Your task to perform on an android device: turn off improve location accuracy Image 0: 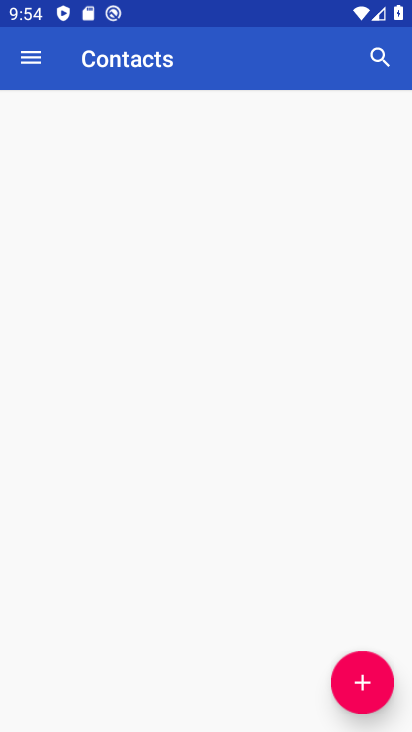
Step 0: press home button
Your task to perform on an android device: turn off improve location accuracy Image 1: 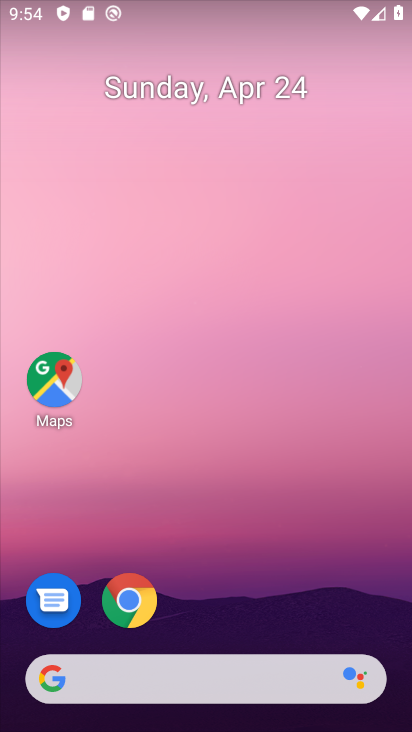
Step 1: drag from (187, 535) to (252, 31)
Your task to perform on an android device: turn off improve location accuracy Image 2: 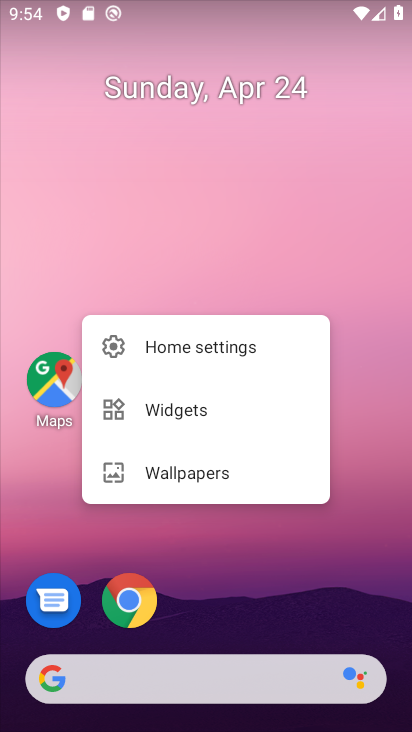
Step 2: click (240, 241)
Your task to perform on an android device: turn off improve location accuracy Image 3: 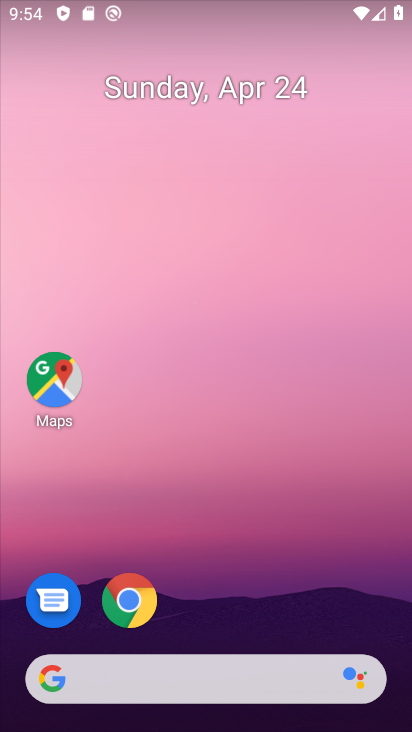
Step 3: drag from (231, 619) to (250, 57)
Your task to perform on an android device: turn off improve location accuracy Image 4: 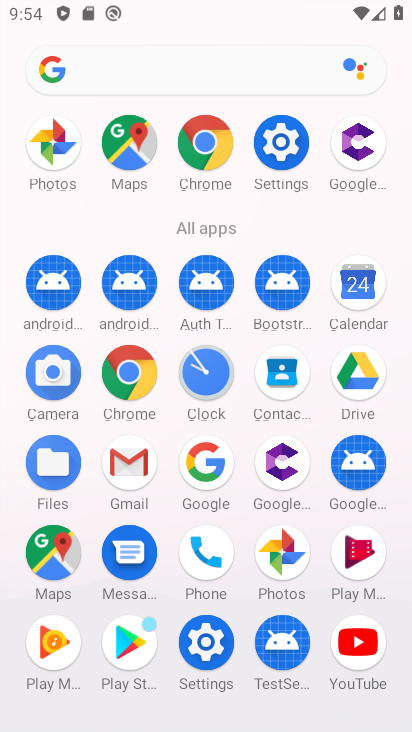
Step 4: click (276, 140)
Your task to perform on an android device: turn off improve location accuracy Image 5: 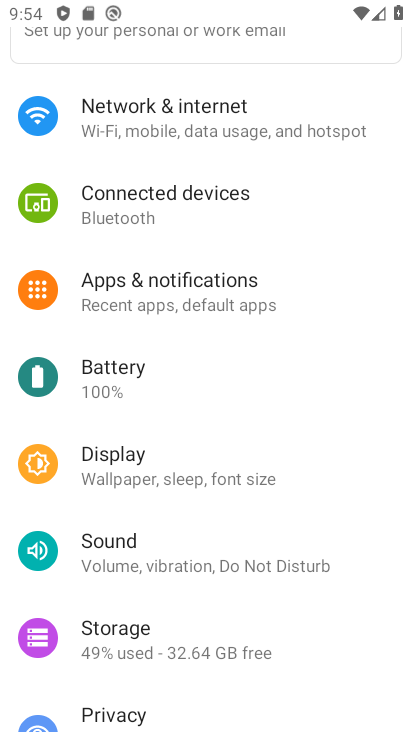
Step 5: drag from (191, 651) to (186, 184)
Your task to perform on an android device: turn off improve location accuracy Image 6: 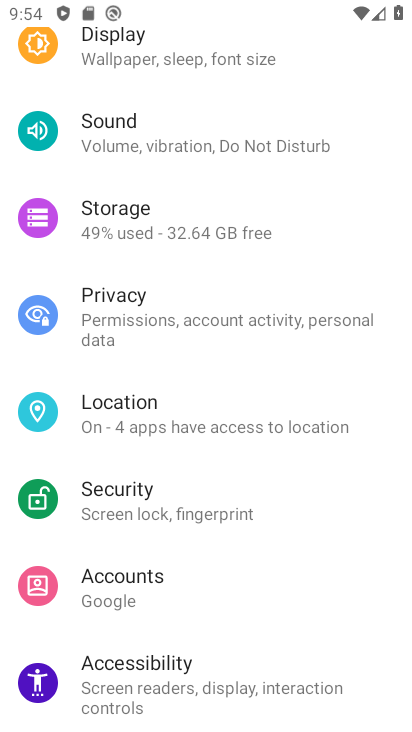
Step 6: click (125, 412)
Your task to perform on an android device: turn off improve location accuracy Image 7: 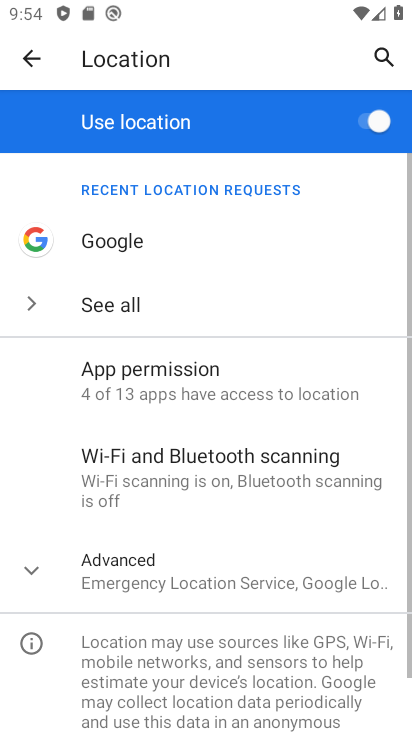
Step 7: click (123, 559)
Your task to perform on an android device: turn off improve location accuracy Image 8: 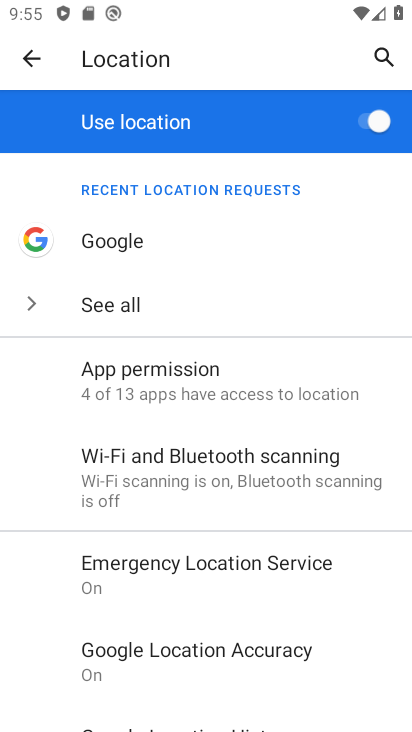
Step 8: click (157, 647)
Your task to perform on an android device: turn off improve location accuracy Image 9: 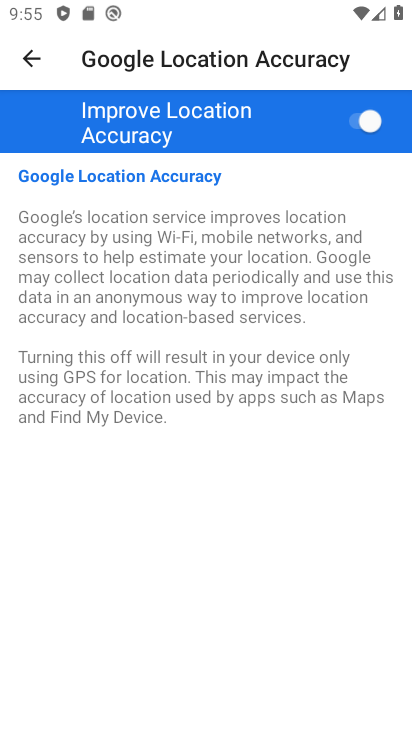
Step 9: click (367, 122)
Your task to perform on an android device: turn off improve location accuracy Image 10: 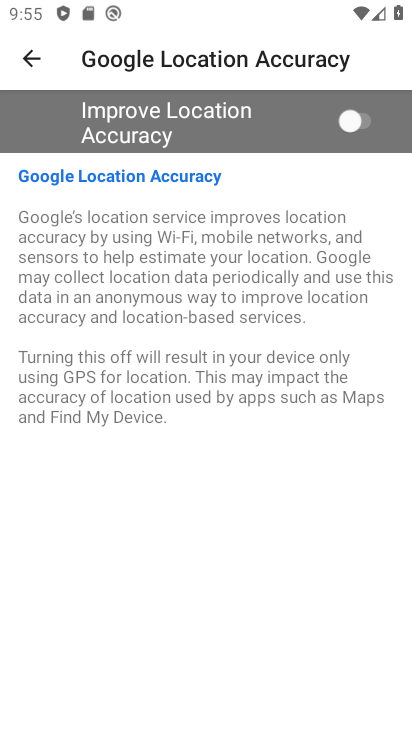
Step 10: task complete